Your task to perform on an android device: move an email to a new category in the gmail app Image 0: 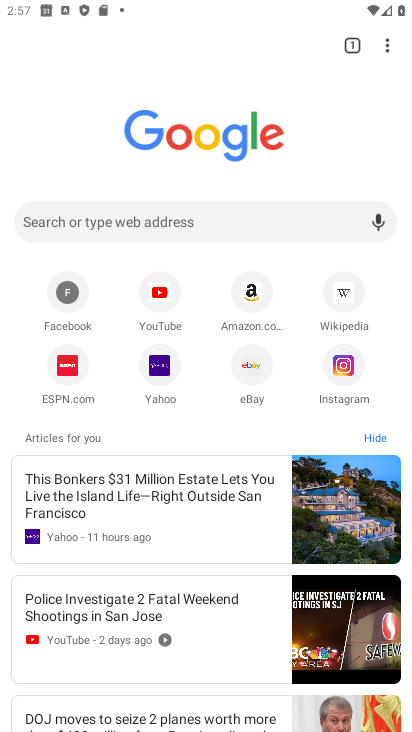
Step 0: click (54, 493)
Your task to perform on an android device: move an email to a new category in the gmail app Image 1: 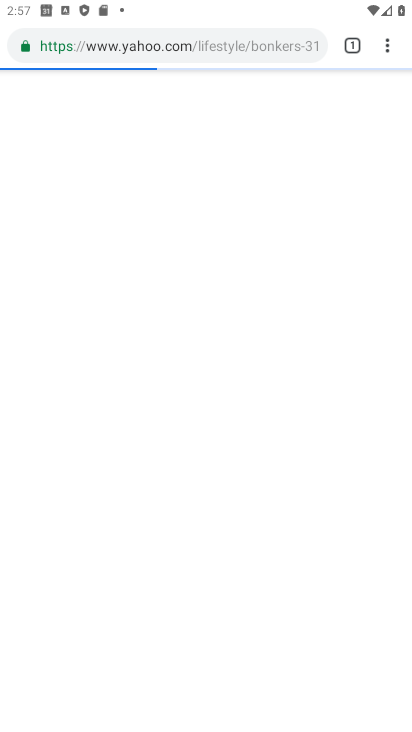
Step 1: press home button
Your task to perform on an android device: move an email to a new category in the gmail app Image 2: 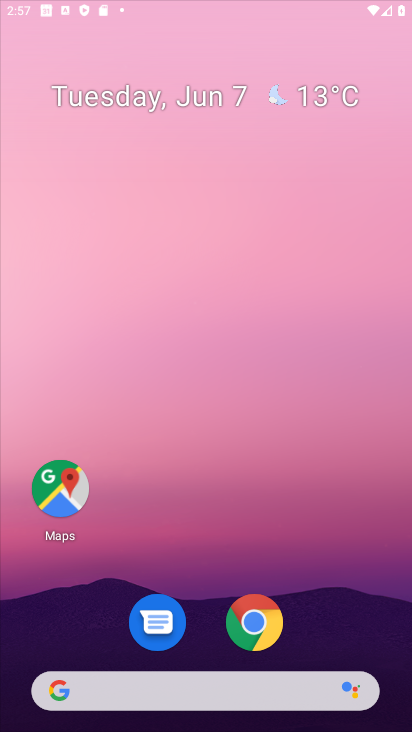
Step 2: press home button
Your task to perform on an android device: move an email to a new category in the gmail app Image 3: 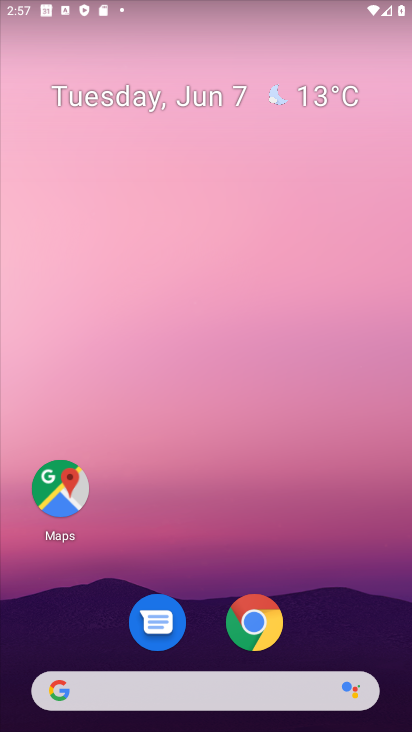
Step 3: drag from (343, 588) to (297, 0)
Your task to perform on an android device: move an email to a new category in the gmail app Image 4: 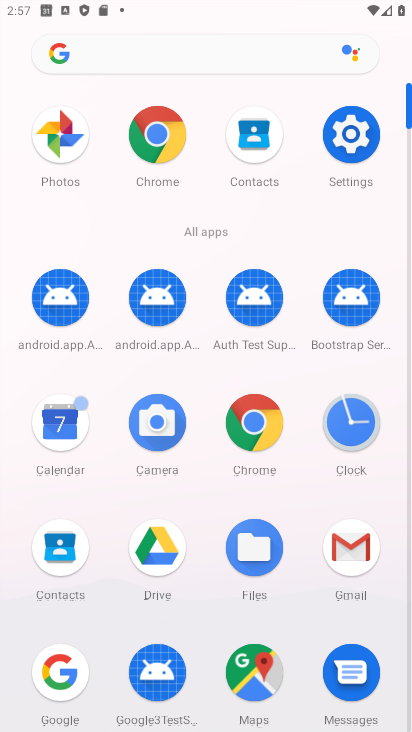
Step 4: click (354, 534)
Your task to perform on an android device: move an email to a new category in the gmail app Image 5: 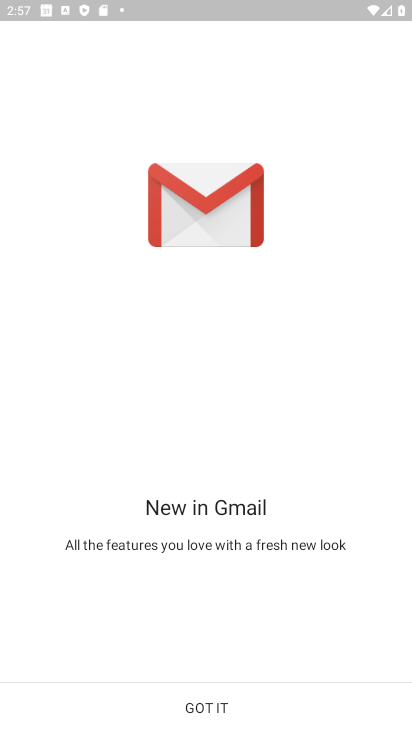
Step 5: click (245, 712)
Your task to perform on an android device: move an email to a new category in the gmail app Image 6: 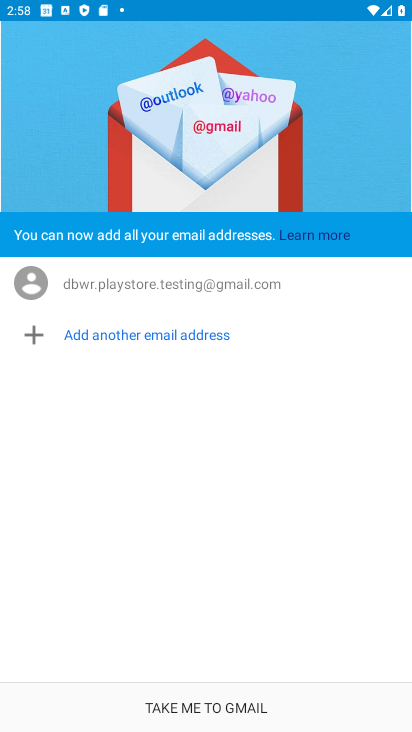
Step 6: click (245, 712)
Your task to perform on an android device: move an email to a new category in the gmail app Image 7: 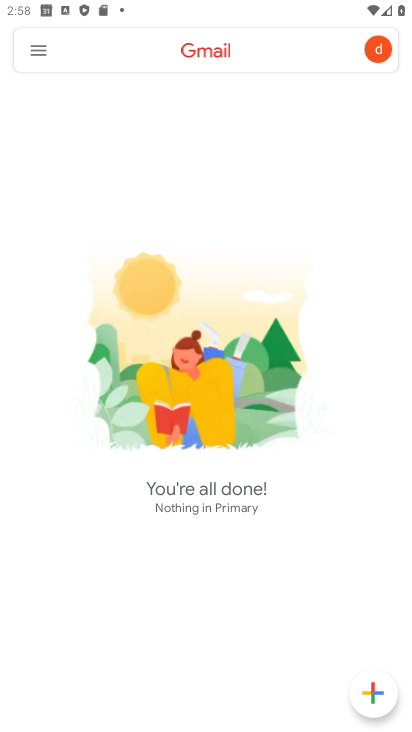
Step 7: click (35, 47)
Your task to perform on an android device: move an email to a new category in the gmail app Image 8: 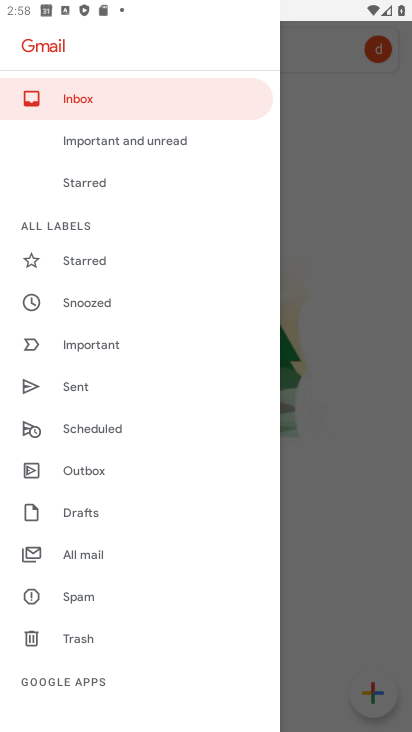
Step 8: drag from (176, 476) to (192, 420)
Your task to perform on an android device: move an email to a new category in the gmail app Image 9: 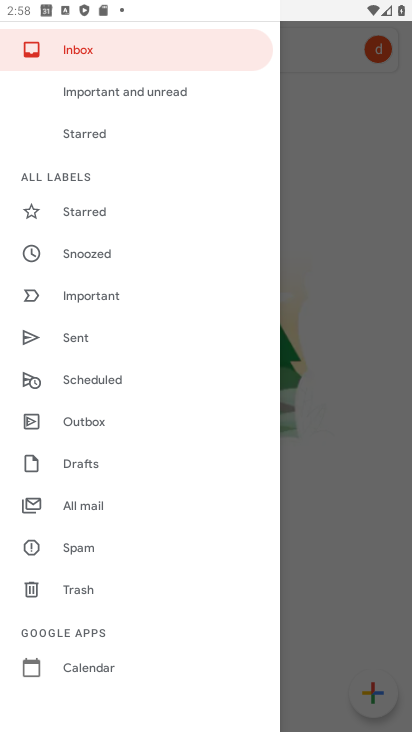
Step 9: click (202, 417)
Your task to perform on an android device: move an email to a new category in the gmail app Image 10: 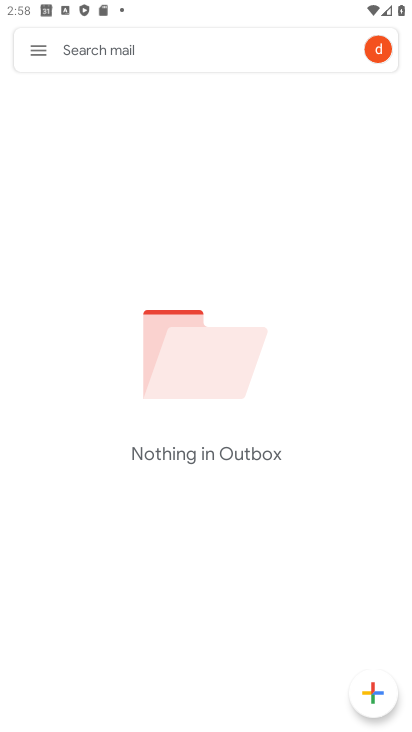
Step 10: drag from (179, 668) to (205, 406)
Your task to perform on an android device: move an email to a new category in the gmail app Image 11: 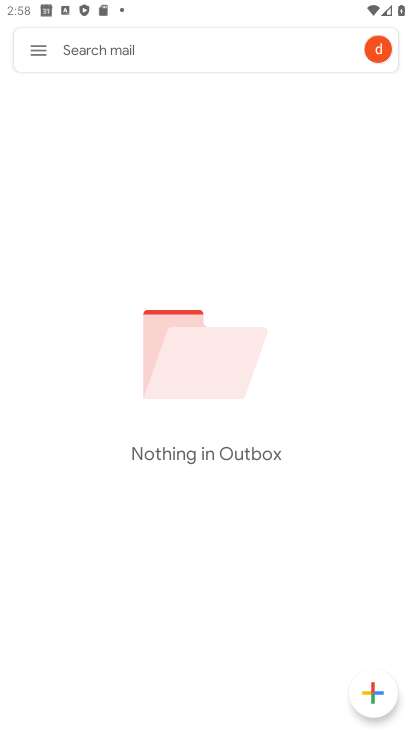
Step 11: click (41, 49)
Your task to perform on an android device: move an email to a new category in the gmail app Image 12: 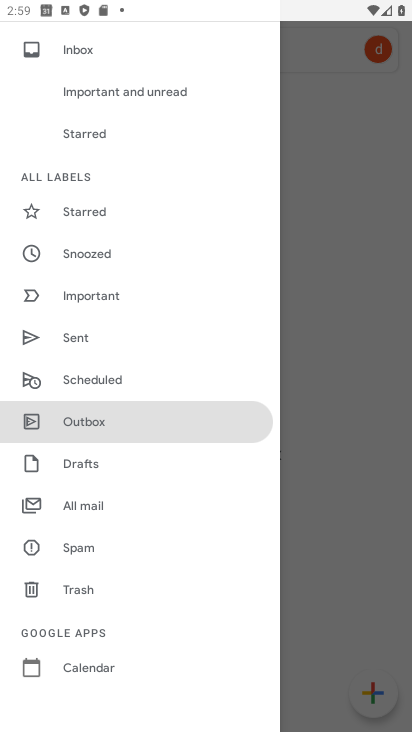
Step 12: drag from (129, 369) to (146, 206)
Your task to perform on an android device: move an email to a new category in the gmail app Image 13: 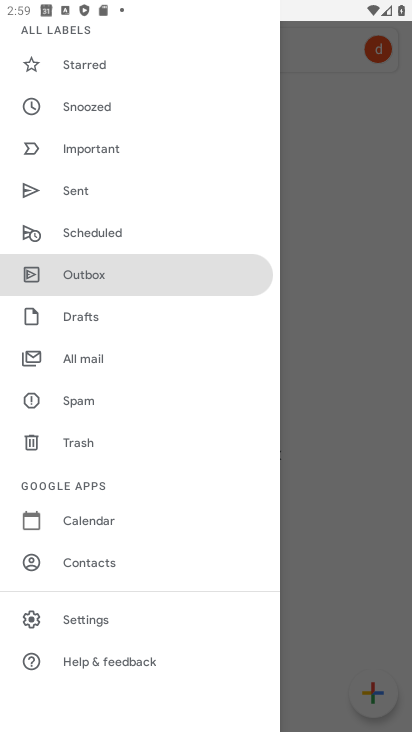
Step 13: click (41, 616)
Your task to perform on an android device: move an email to a new category in the gmail app Image 14: 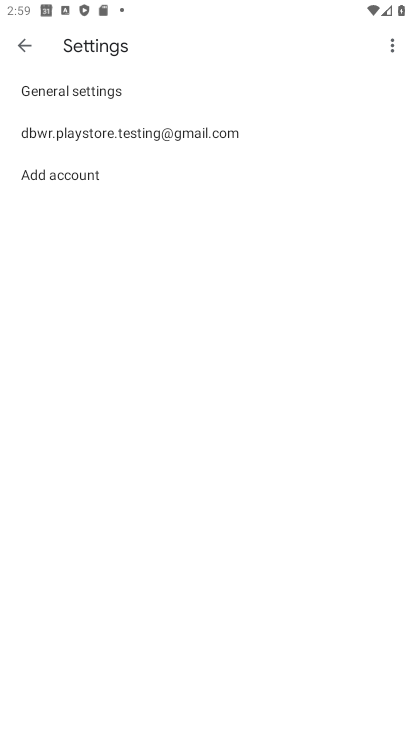
Step 14: click (82, 88)
Your task to perform on an android device: move an email to a new category in the gmail app Image 15: 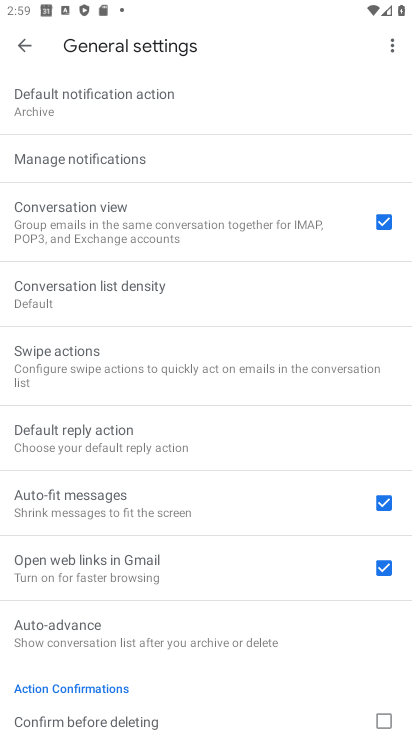
Step 15: task complete